Your task to perform on an android device: Open my contact list Image 0: 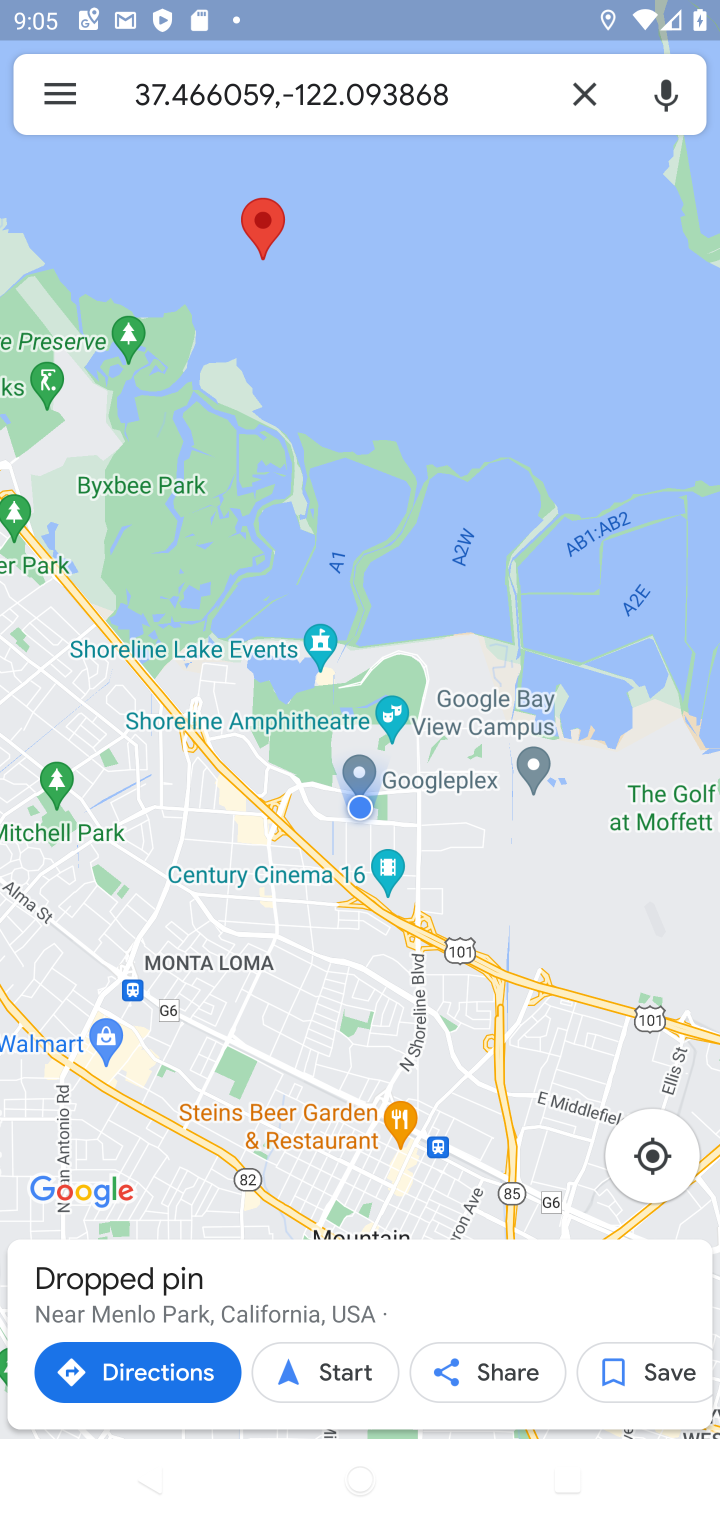
Step 0: drag from (353, 500) to (353, 372)
Your task to perform on an android device: Open my contact list Image 1: 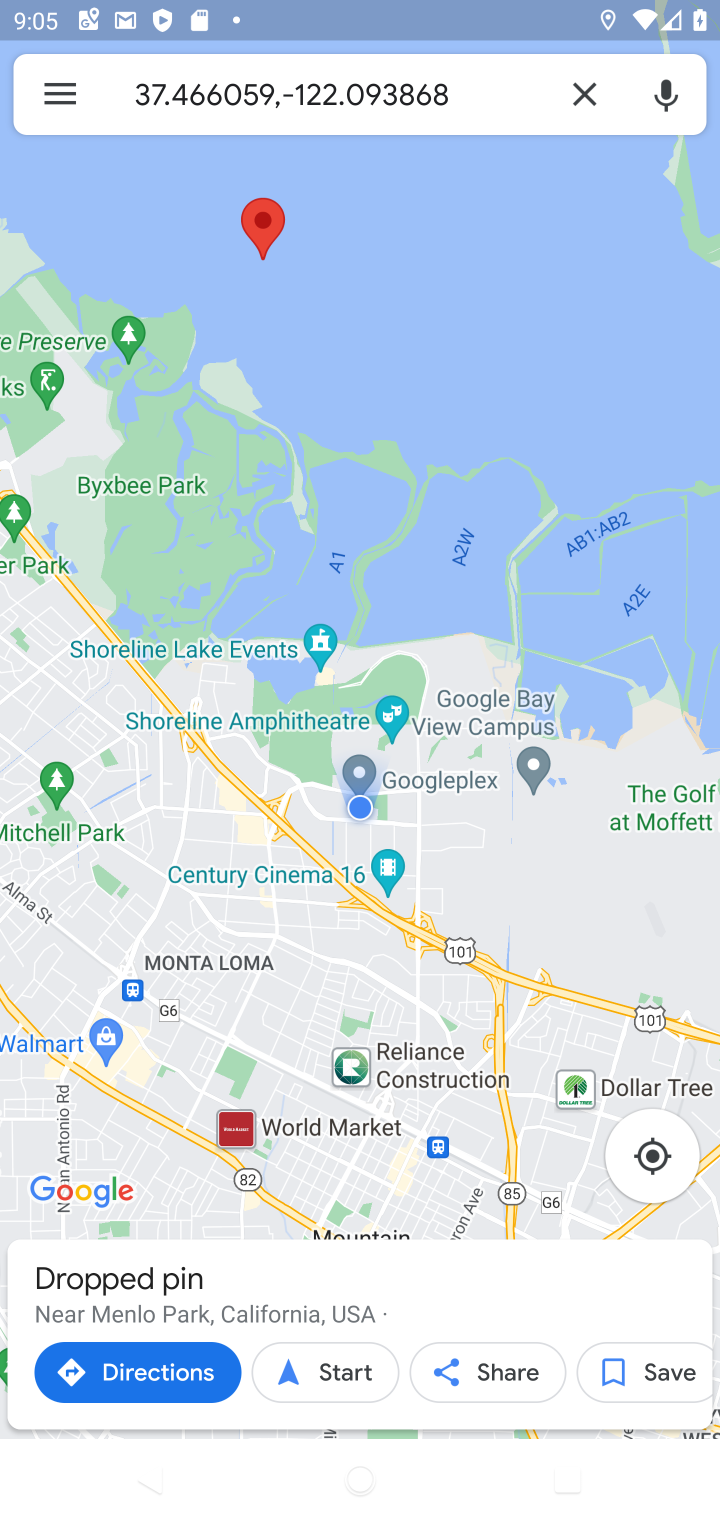
Step 1: press back button
Your task to perform on an android device: Open my contact list Image 2: 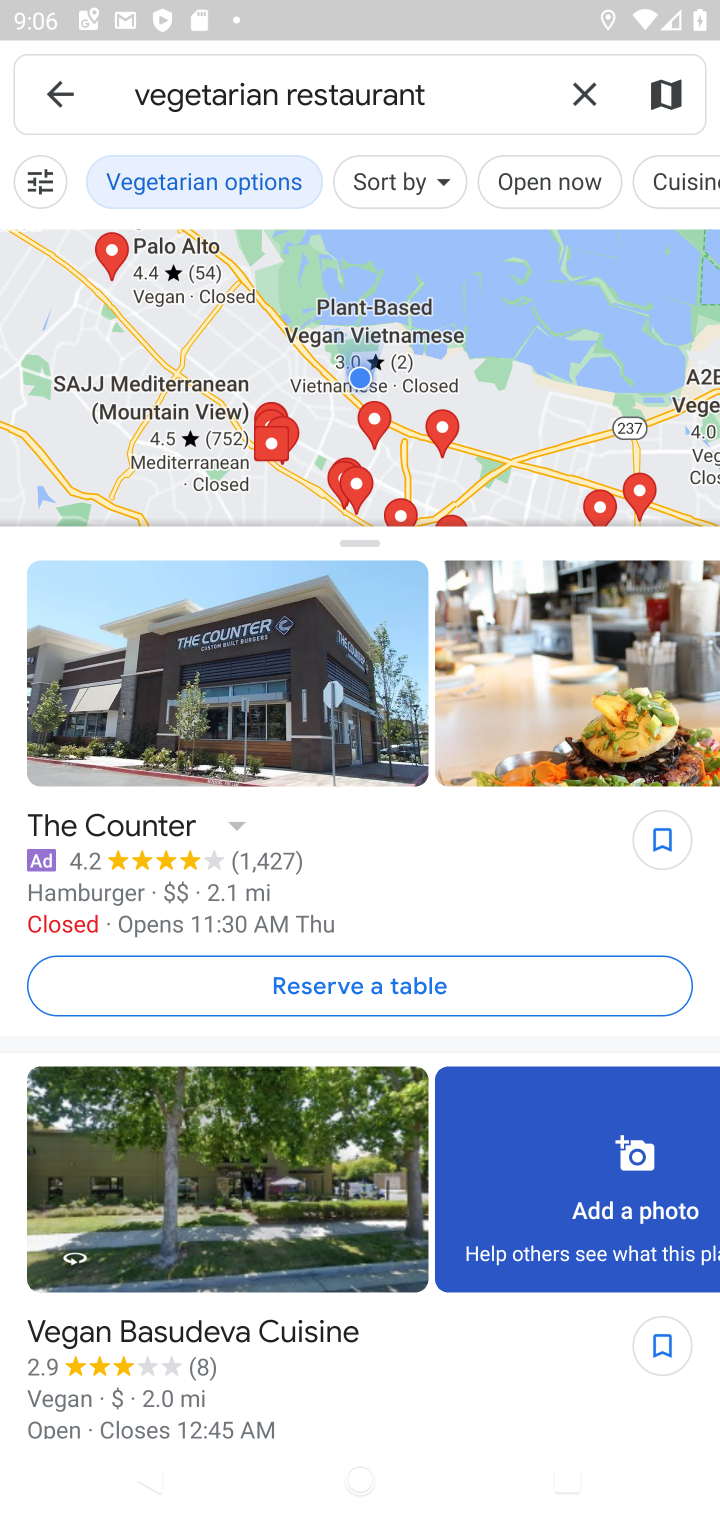
Step 2: press back button
Your task to perform on an android device: Open my contact list Image 3: 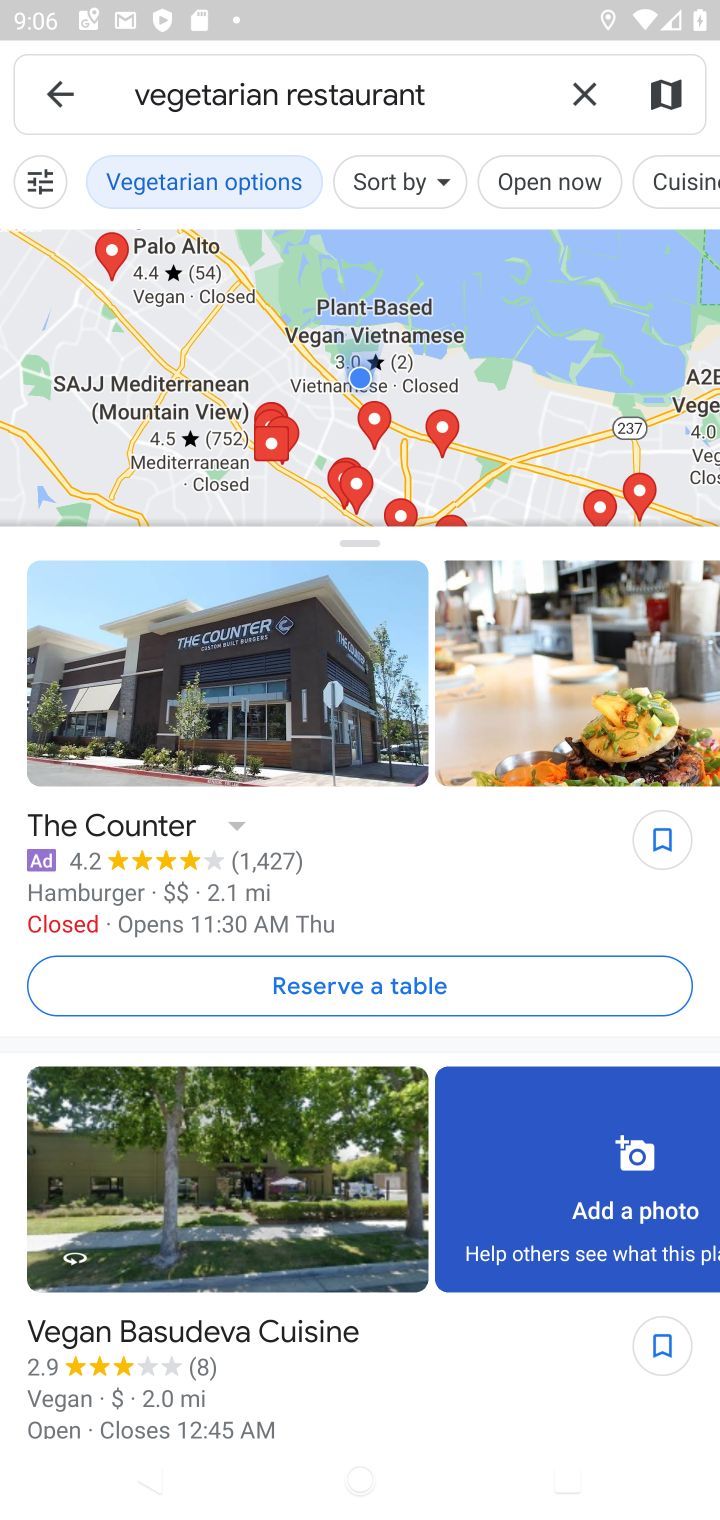
Step 3: press home button
Your task to perform on an android device: Open my contact list Image 4: 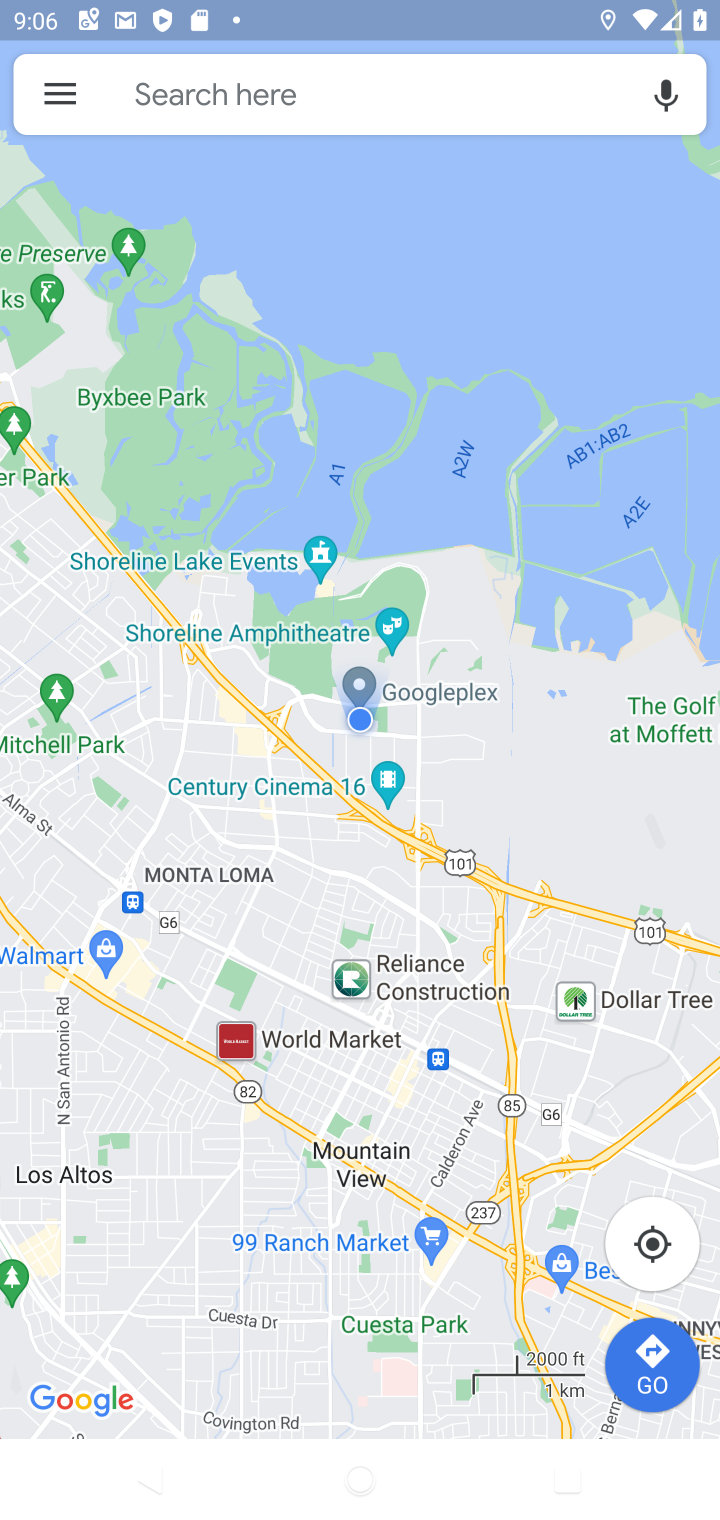
Step 4: press home button
Your task to perform on an android device: Open my contact list Image 5: 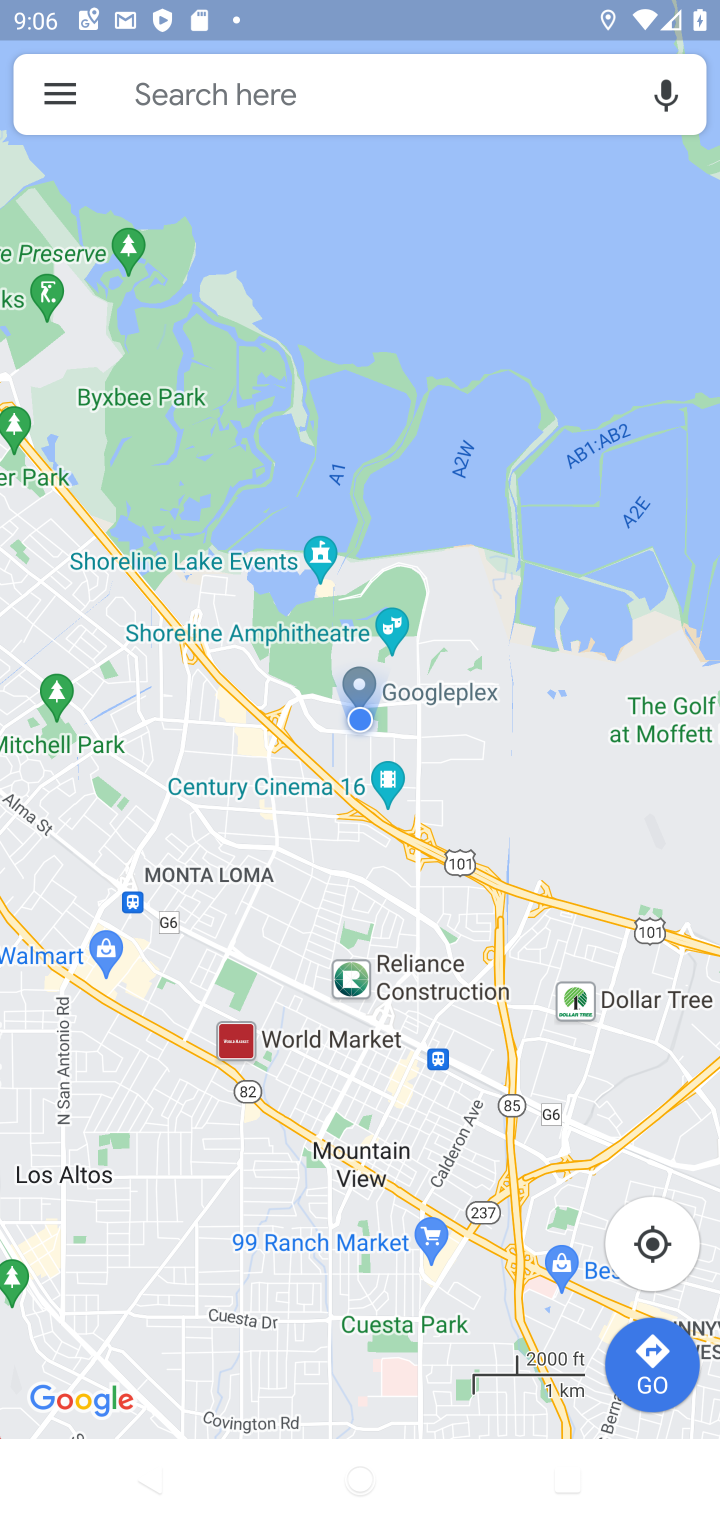
Step 5: click (464, 348)
Your task to perform on an android device: Open my contact list Image 6: 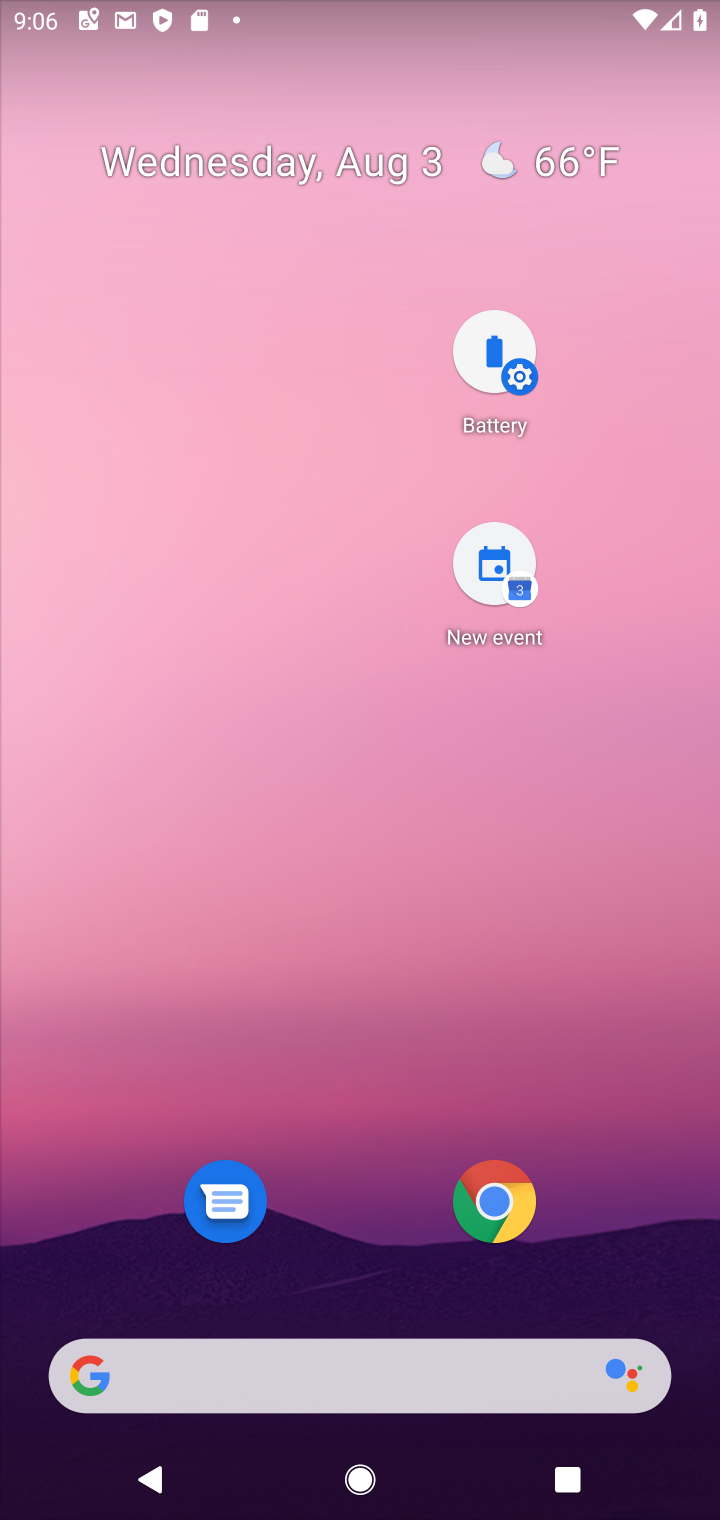
Step 6: press back button
Your task to perform on an android device: Open my contact list Image 7: 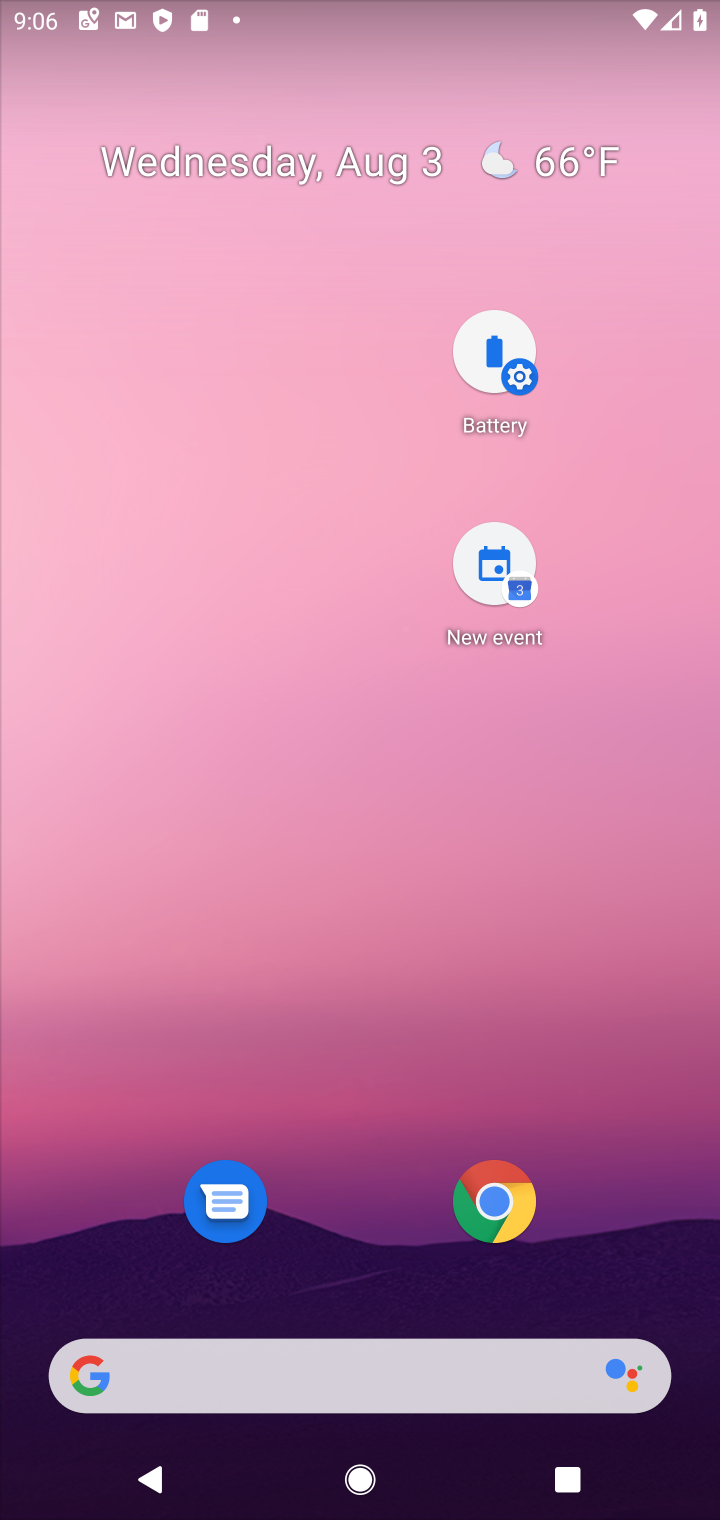
Step 7: drag from (250, 992) to (297, 404)
Your task to perform on an android device: Open my contact list Image 8: 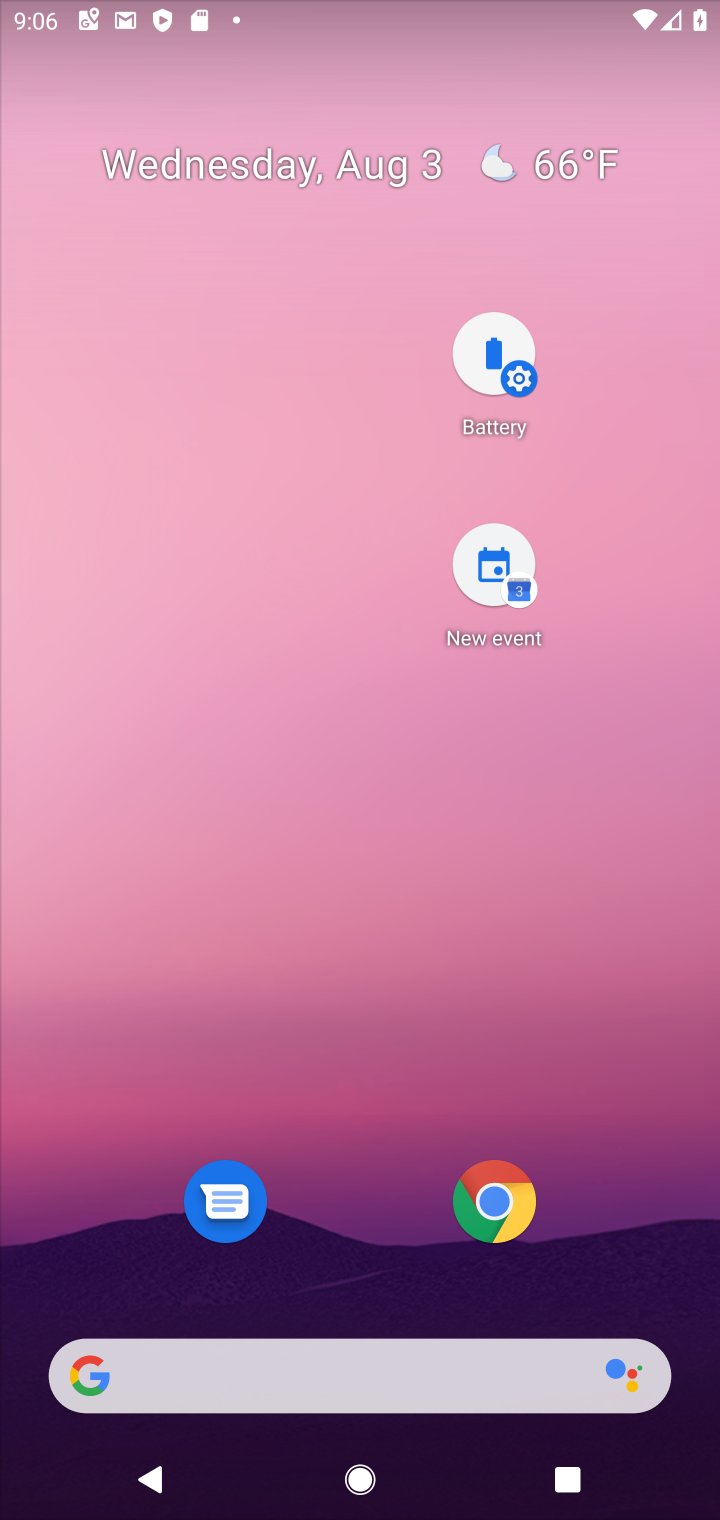
Step 8: drag from (332, 994) to (296, 133)
Your task to perform on an android device: Open my contact list Image 9: 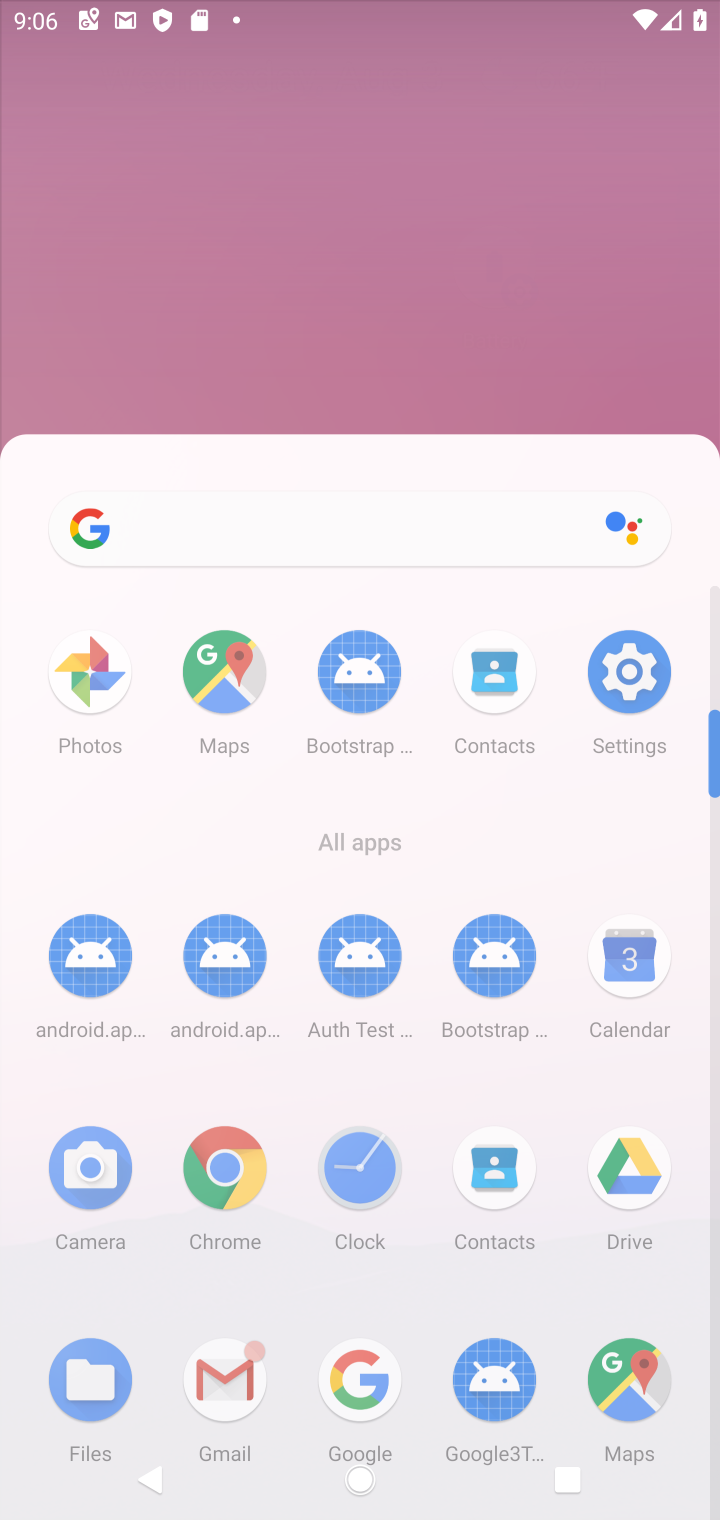
Step 9: drag from (383, 813) to (482, 0)
Your task to perform on an android device: Open my contact list Image 10: 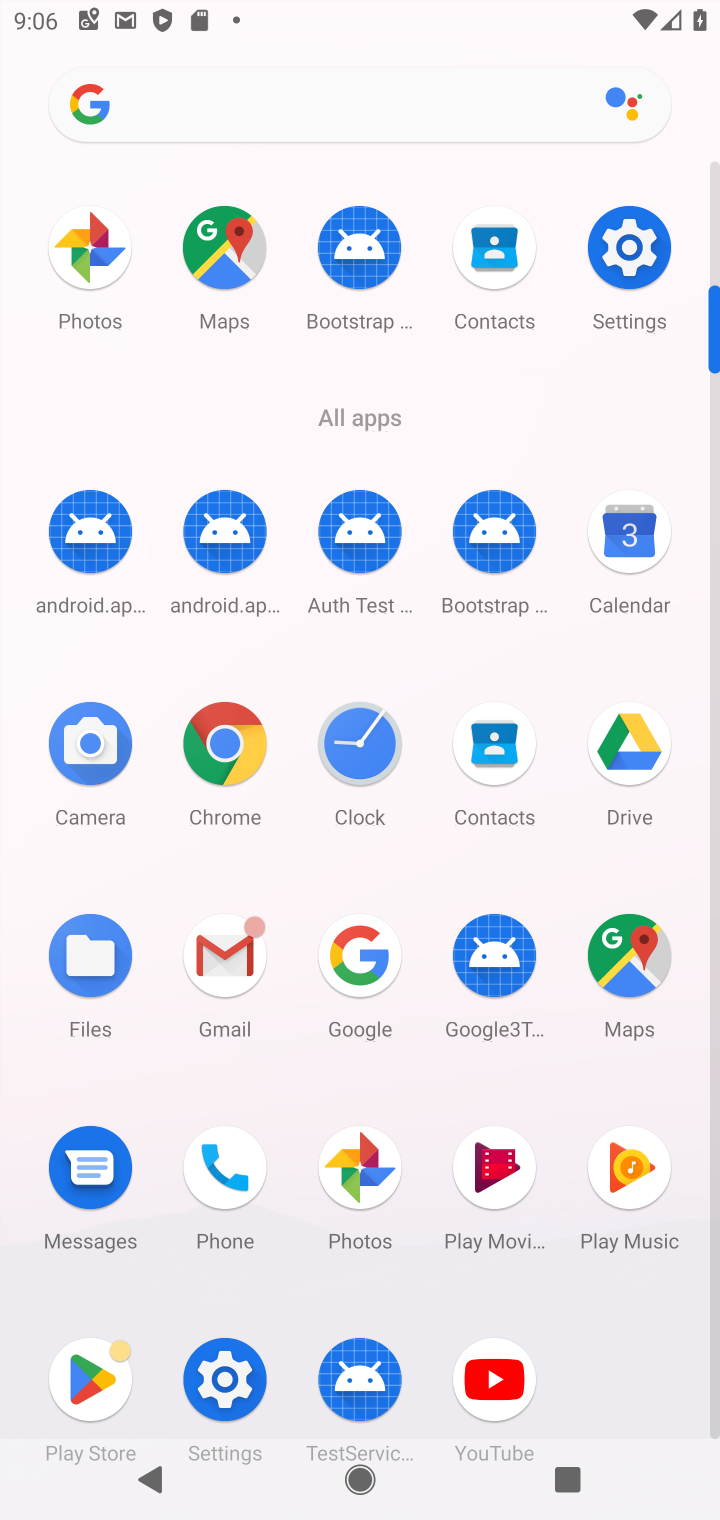
Step 10: click (460, 230)
Your task to perform on an android device: Open my contact list Image 11: 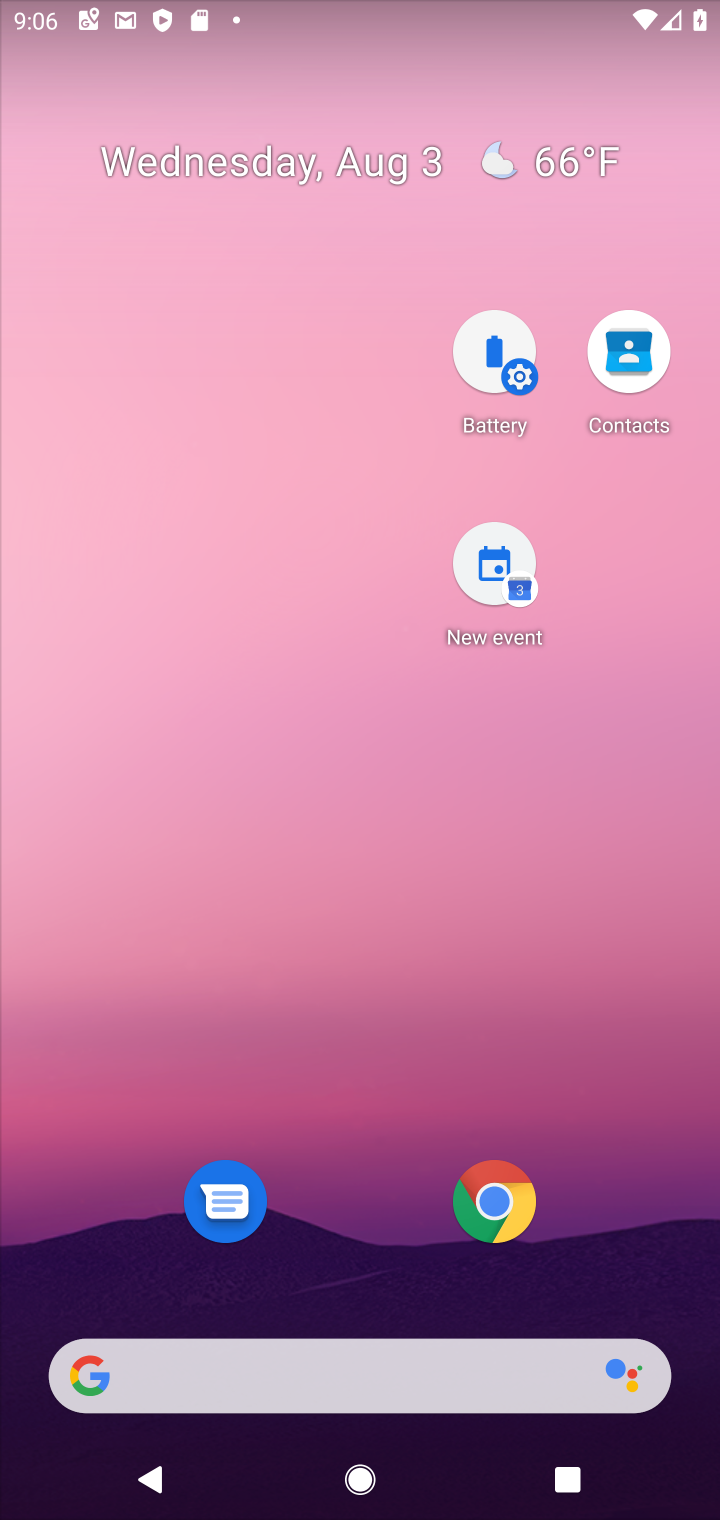
Step 11: drag from (267, 1233) to (534, 90)
Your task to perform on an android device: Open my contact list Image 12: 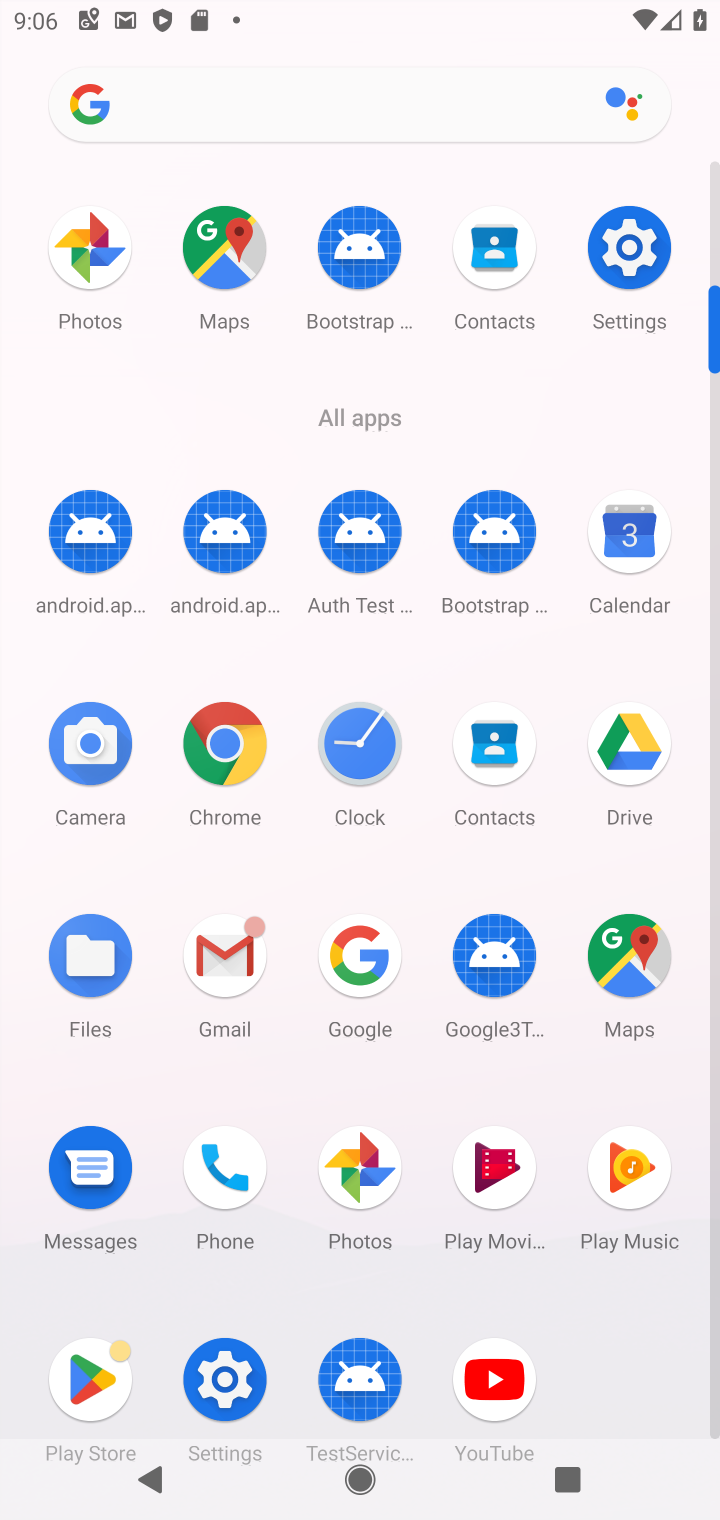
Step 12: click (628, 539)
Your task to perform on an android device: Open my contact list Image 13: 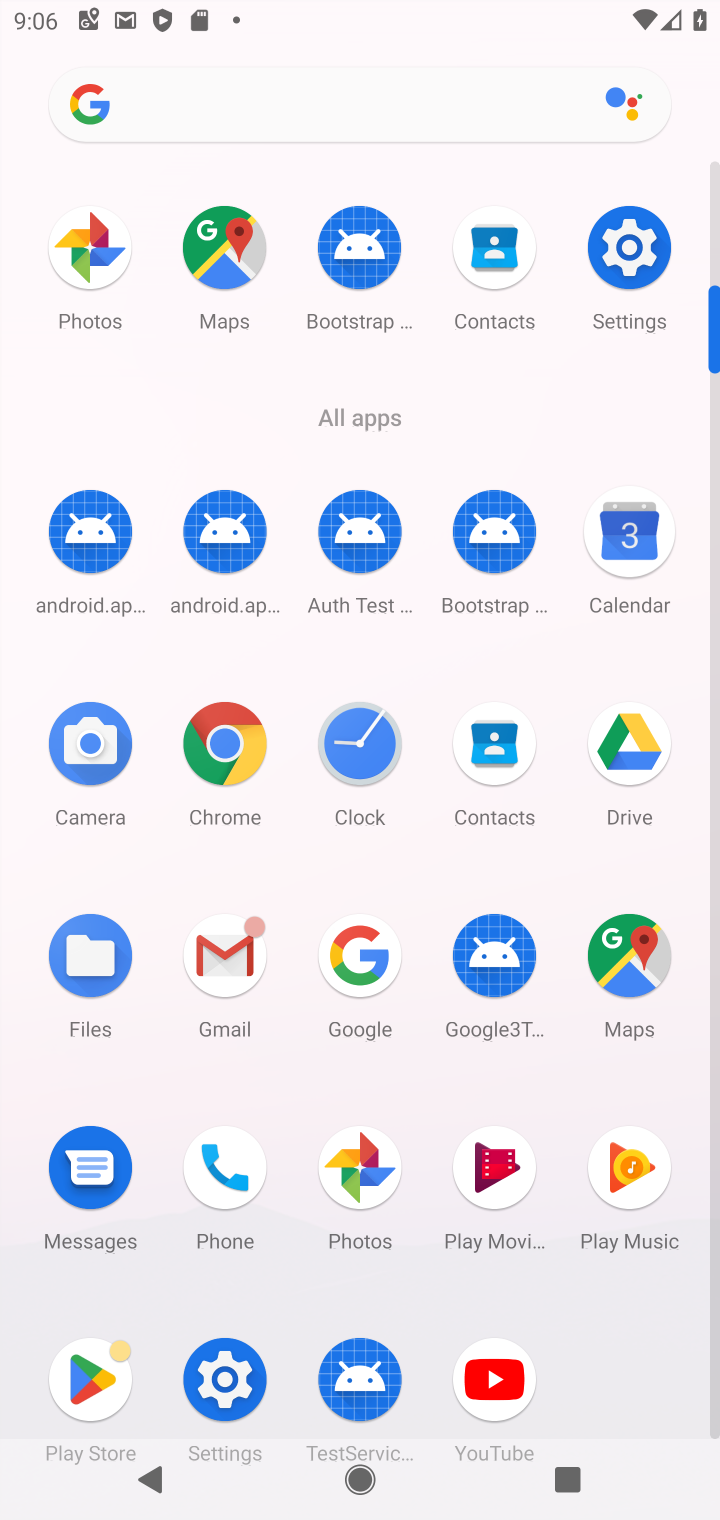
Step 13: click (668, 549)
Your task to perform on an android device: Open my contact list Image 14: 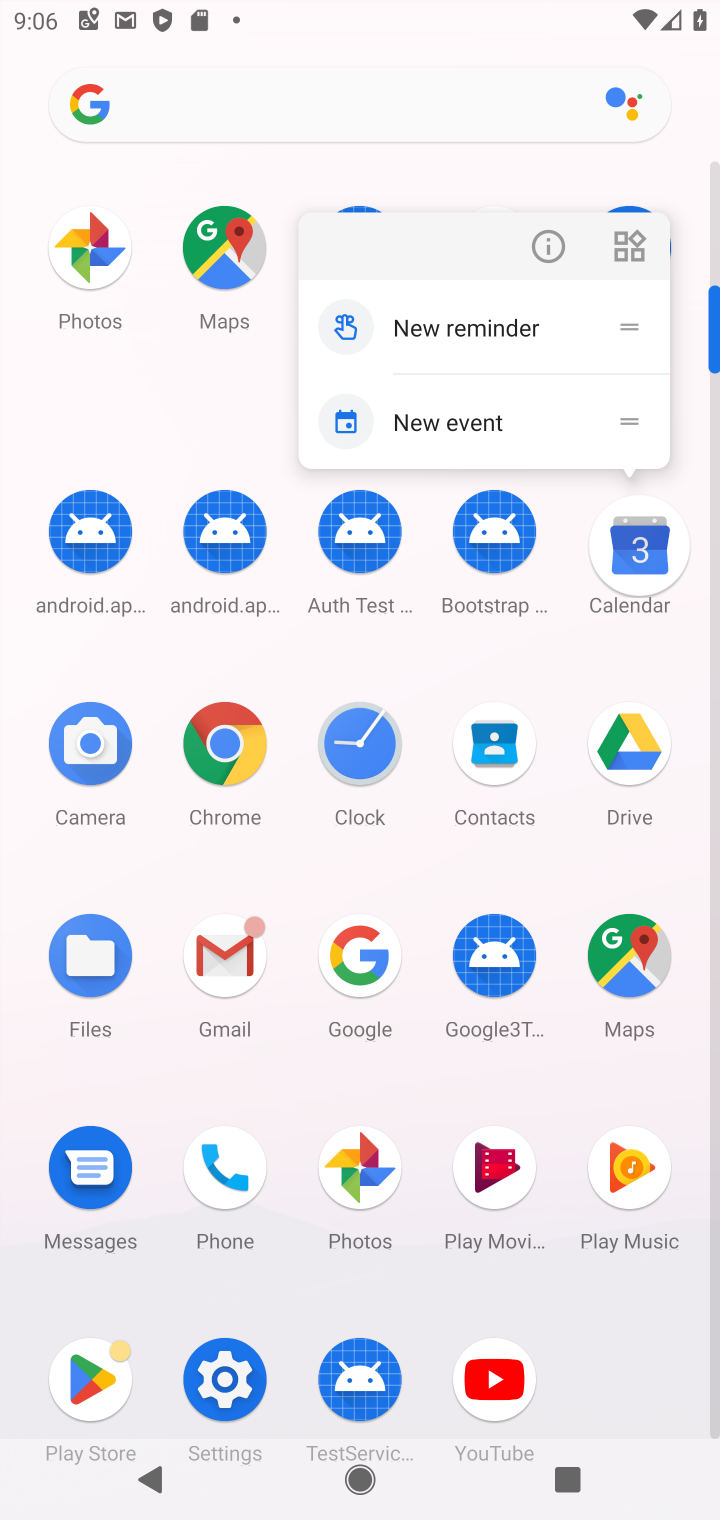
Step 14: click (636, 554)
Your task to perform on an android device: Open my contact list Image 15: 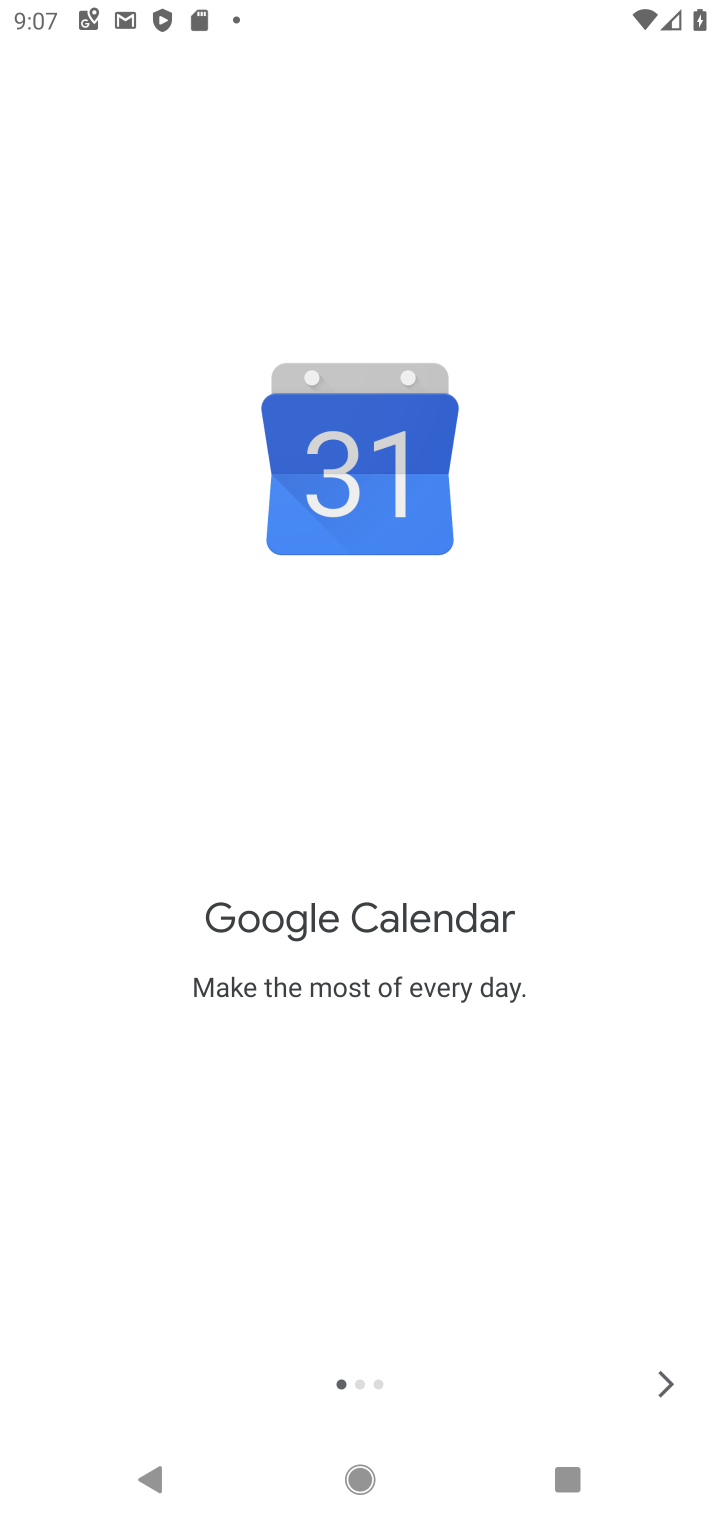
Step 15: press back button
Your task to perform on an android device: Open my contact list Image 16: 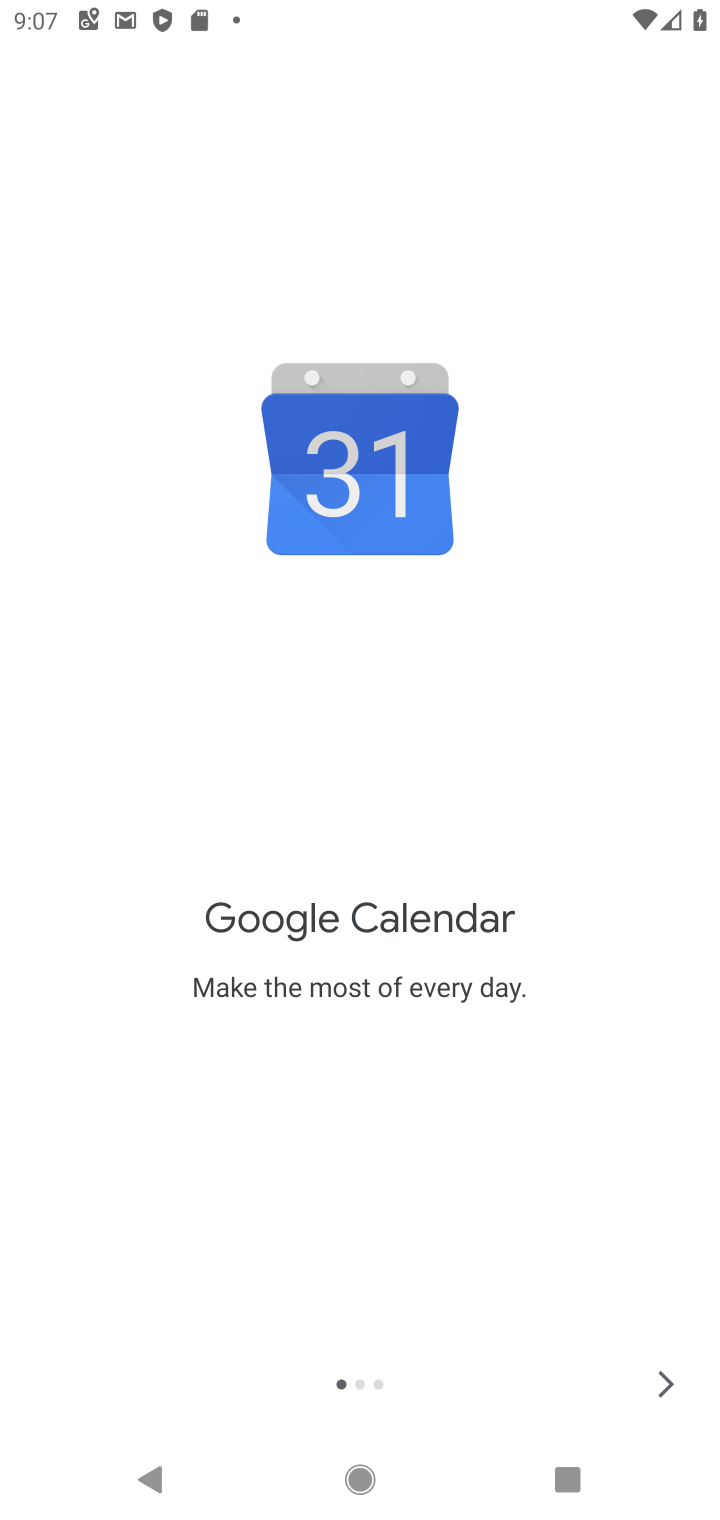
Step 16: press back button
Your task to perform on an android device: Open my contact list Image 17: 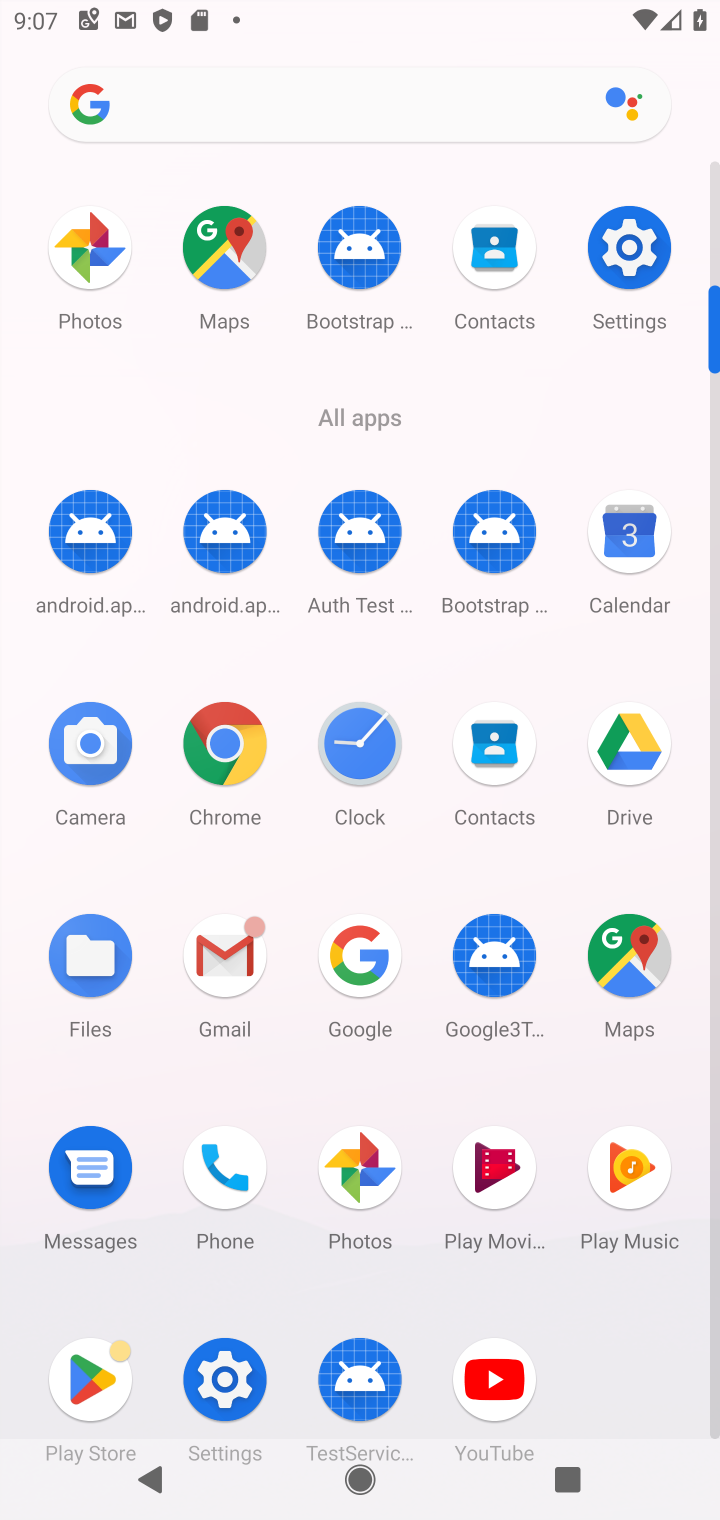
Step 17: click (503, 253)
Your task to perform on an android device: Open my contact list Image 18: 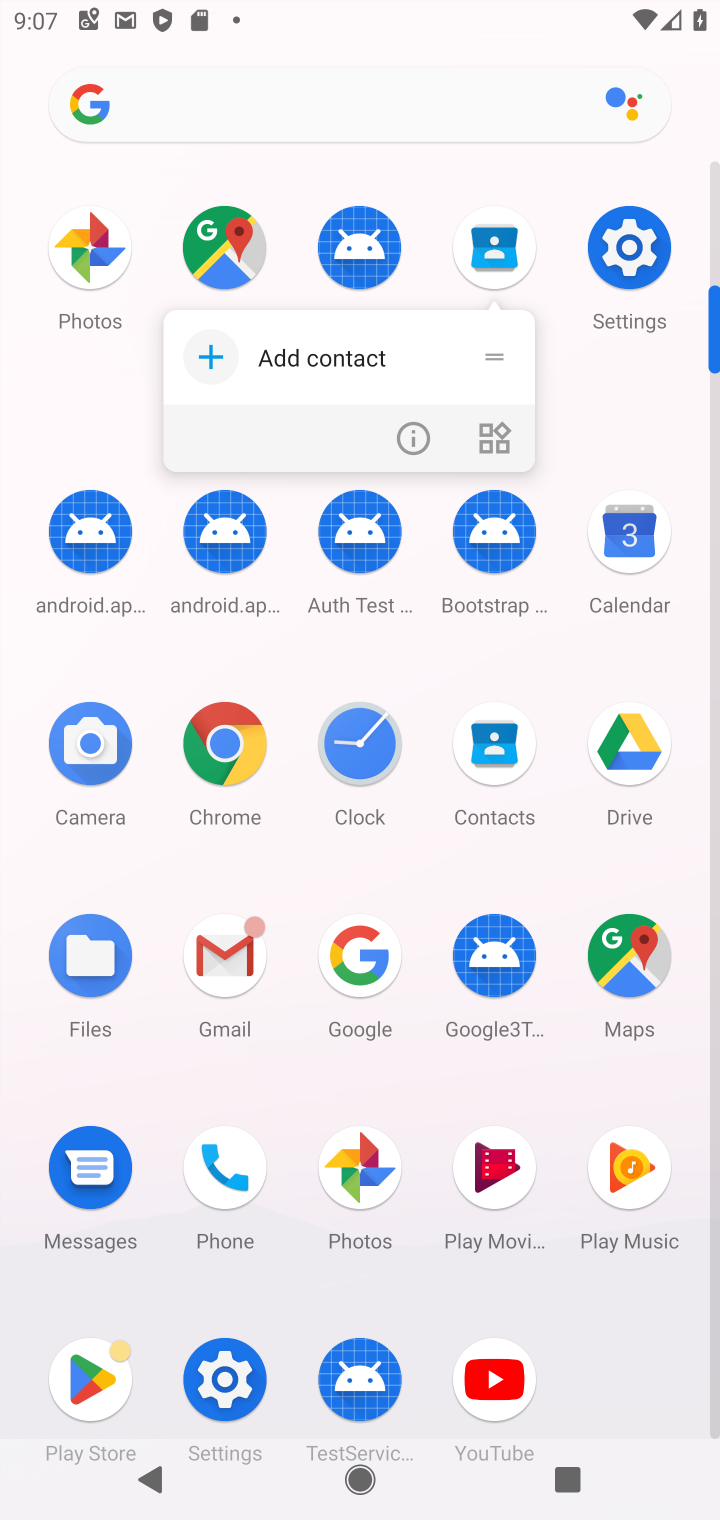
Step 18: click (501, 748)
Your task to perform on an android device: Open my contact list Image 19: 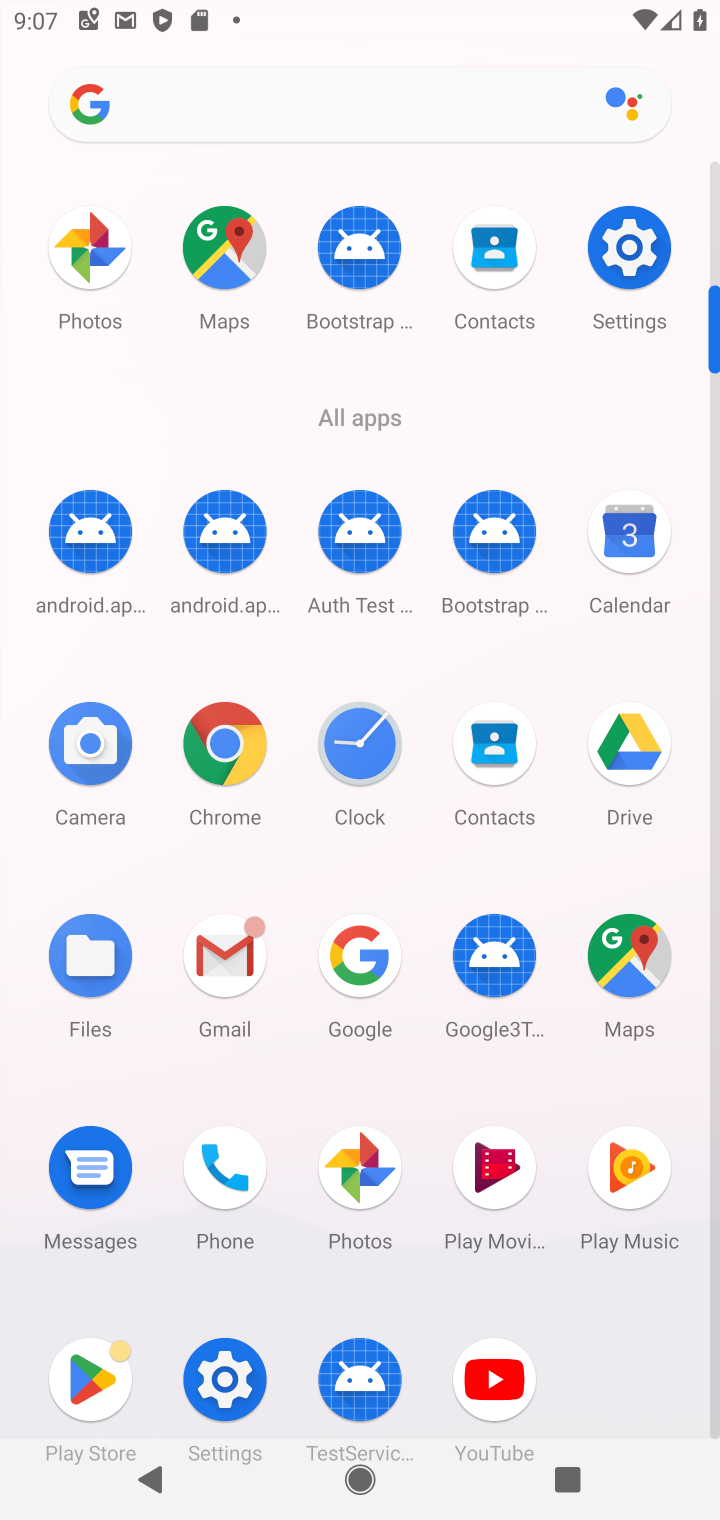
Step 19: click (496, 744)
Your task to perform on an android device: Open my contact list Image 20: 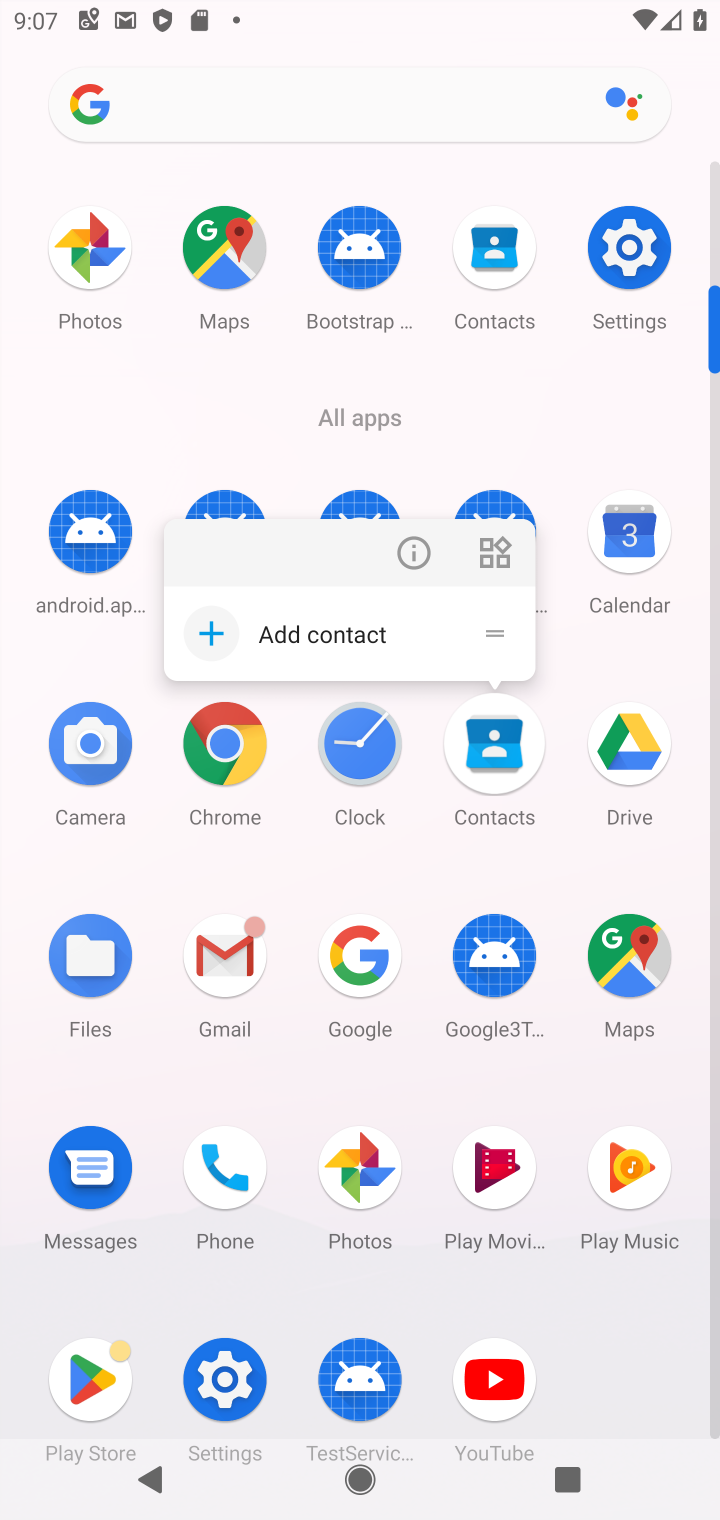
Step 20: click (492, 725)
Your task to perform on an android device: Open my contact list Image 21: 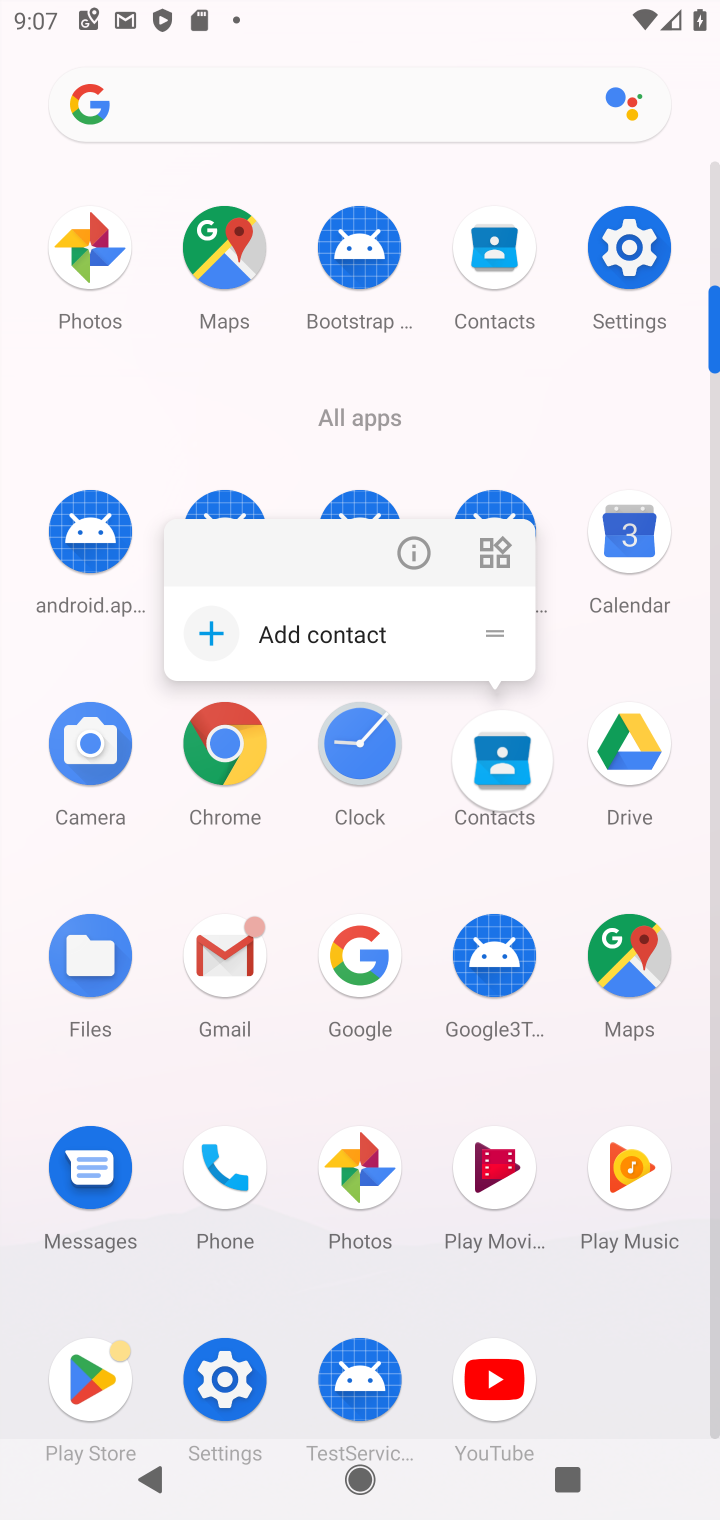
Step 21: click (504, 731)
Your task to perform on an android device: Open my contact list Image 22: 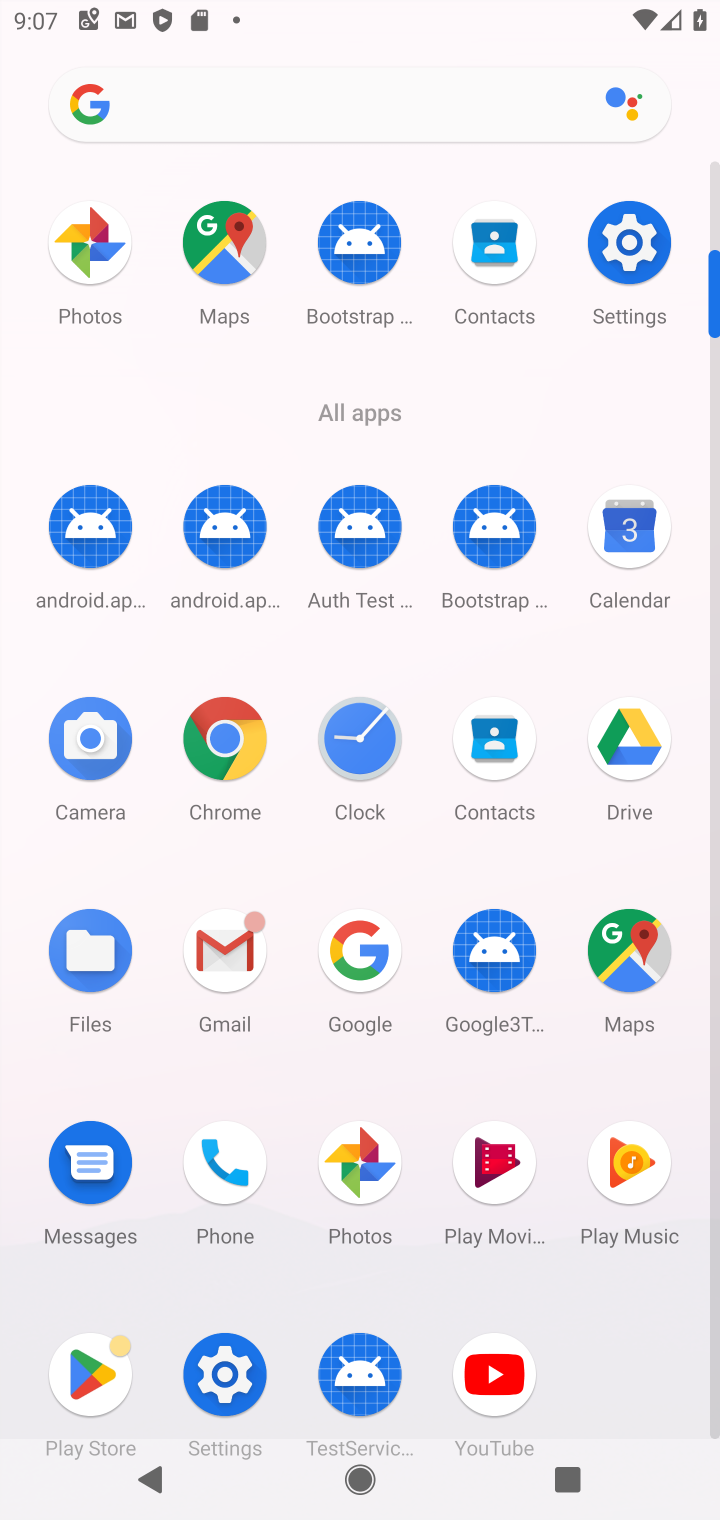
Step 22: task complete